Your task to perform on an android device: Go to calendar. Show me events next week Image 0: 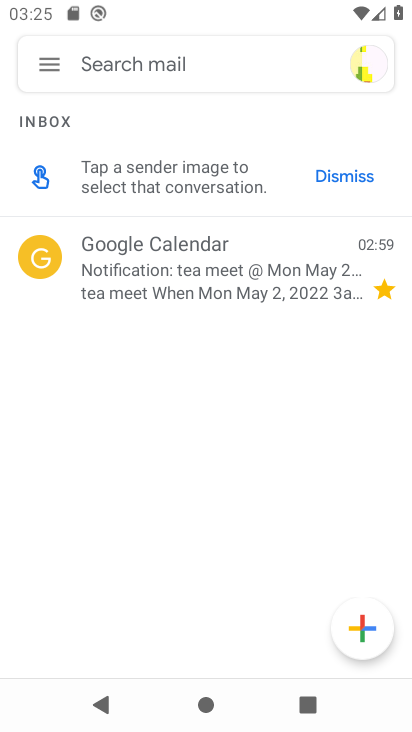
Step 0: press home button
Your task to perform on an android device: Go to calendar. Show me events next week Image 1: 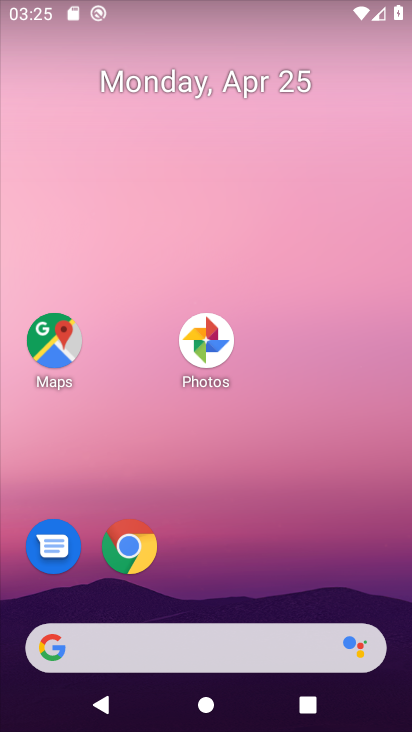
Step 1: drag from (244, 565) to (363, 157)
Your task to perform on an android device: Go to calendar. Show me events next week Image 2: 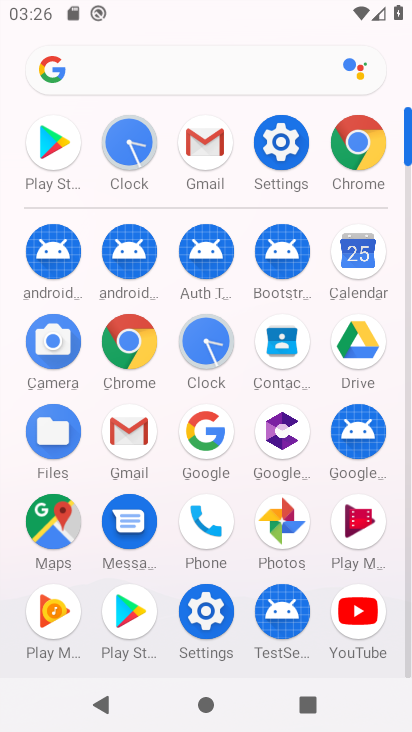
Step 2: click (361, 241)
Your task to perform on an android device: Go to calendar. Show me events next week Image 3: 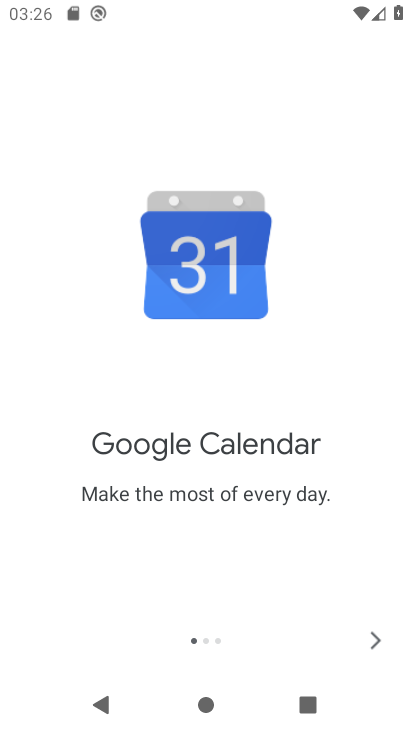
Step 3: click (366, 635)
Your task to perform on an android device: Go to calendar. Show me events next week Image 4: 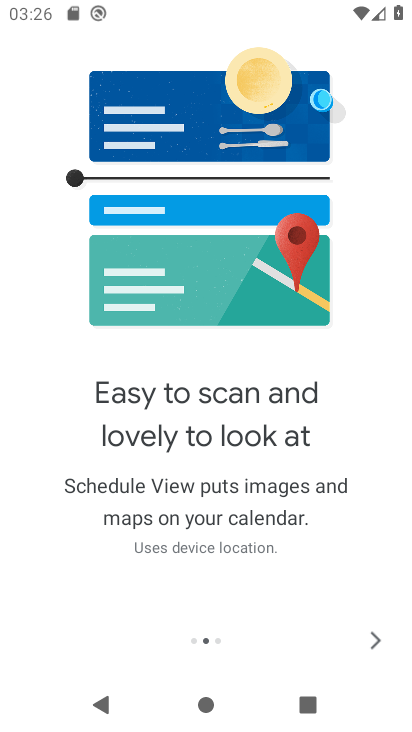
Step 4: click (374, 634)
Your task to perform on an android device: Go to calendar. Show me events next week Image 5: 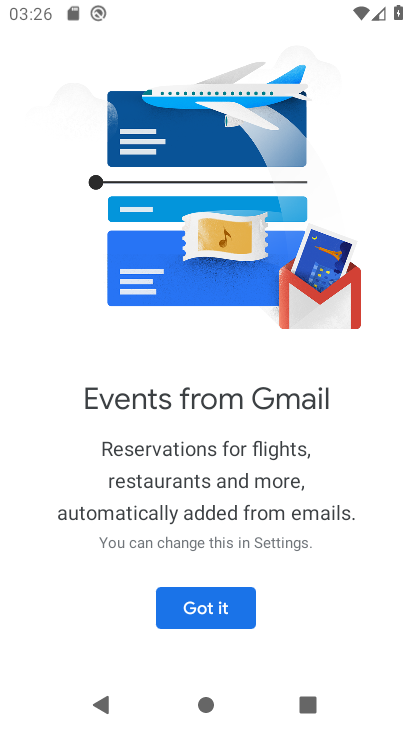
Step 5: click (199, 594)
Your task to perform on an android device: Go to calendar. Show me events next week Image 6: 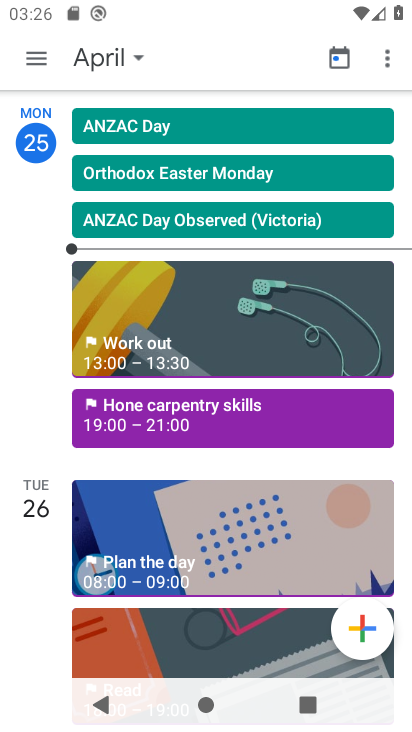
Step 6: click (35, 62)
Your task to perform on an android device: Go to calendar. Show me events next week Image 7: 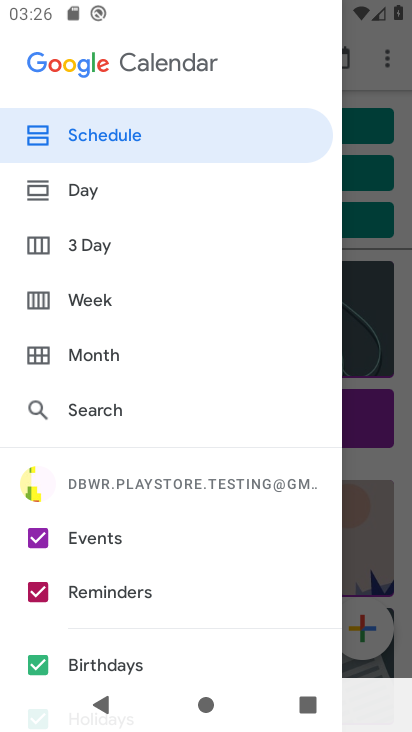
Step 7: click (108, 309)
Your task to perform on an android device: Go to calendar. Show me events next week Image 8: 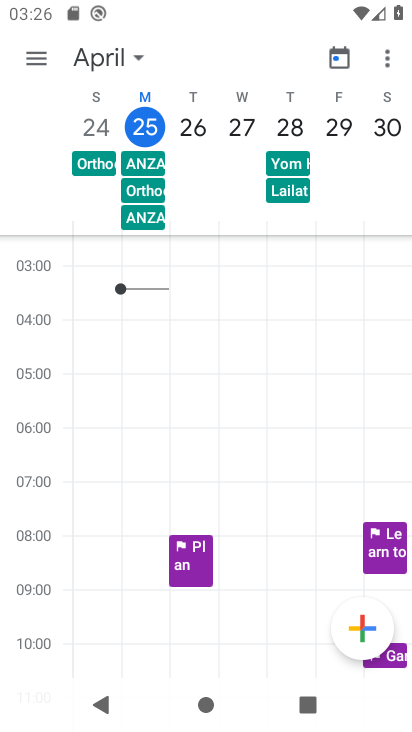
Step 8: click (40, 39)
Your task to perform on an android device: Go to calendar. Show me events next week Image 9: 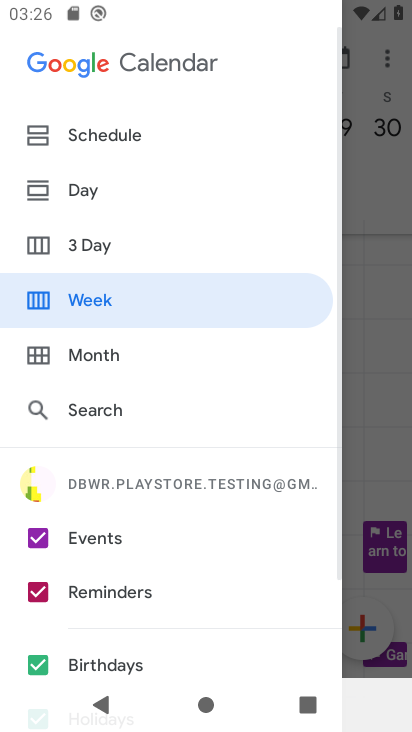
Step 9: click (113, 362)
Your task to perform on an android device: Go to calendar. Show me events next week Image 10: 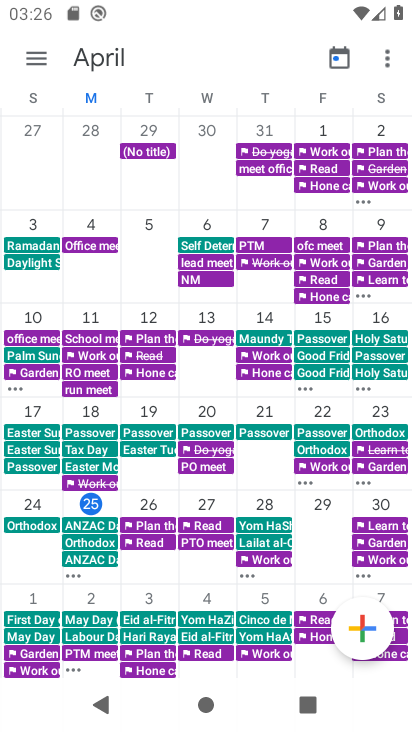
Step 10: click (97, 597)
Your task to perform on an android device: Go to calendar. Show me events next week Image 11: 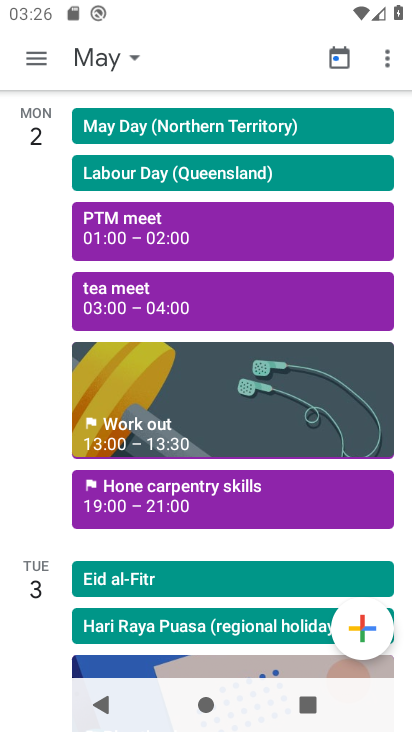
Step 11: task complete